Your task to perform on an android device: Open Android settings Image 0: 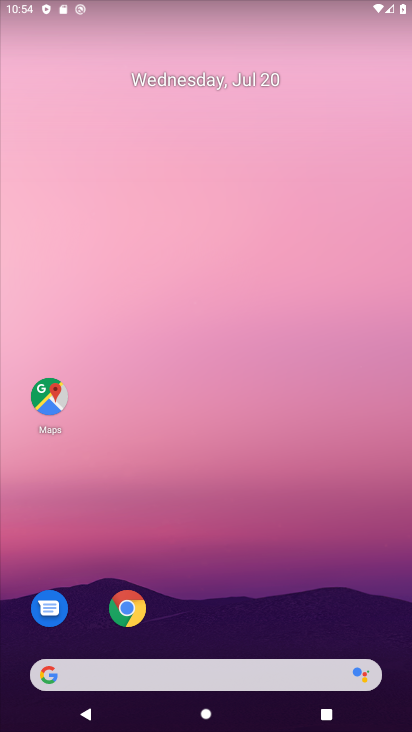
Step 0: drag from (350, 622) to (156, 54)
Your task to perform on an android device: Open Android settings Image 1: 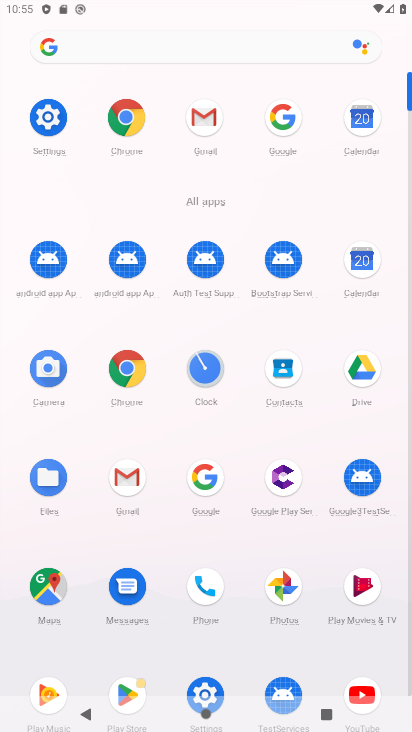
Step 1: click (202, 684)
Your task to perform on an android device: Open Android settings Image 2: 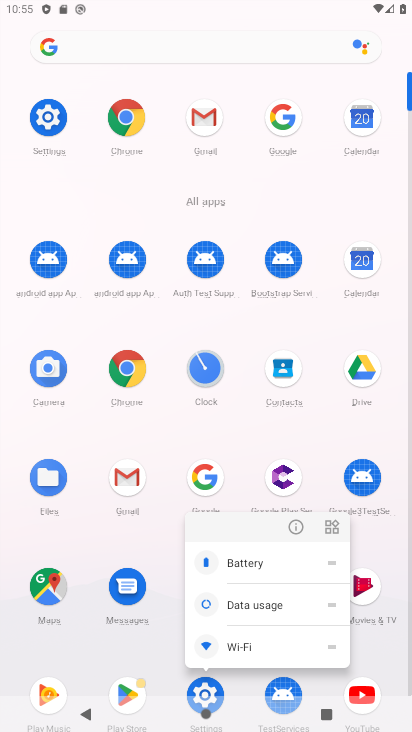
Step 2: click (201, 678)
Your task to perform on an android device: Open Android settings Image 3: 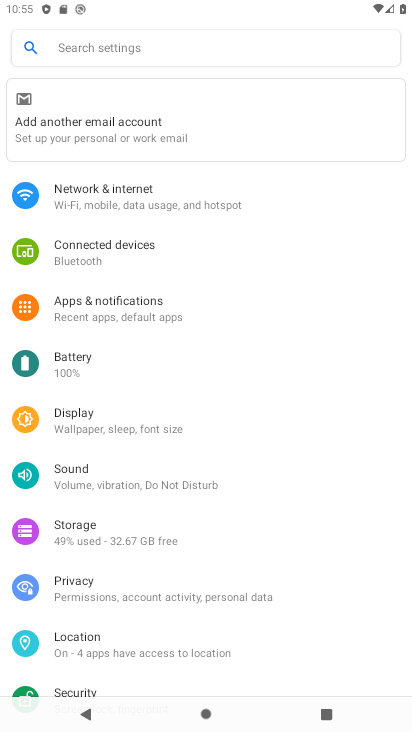
Step 3: task complete